Your task to perform on an android device: Go to Yahoo.com Image 0: 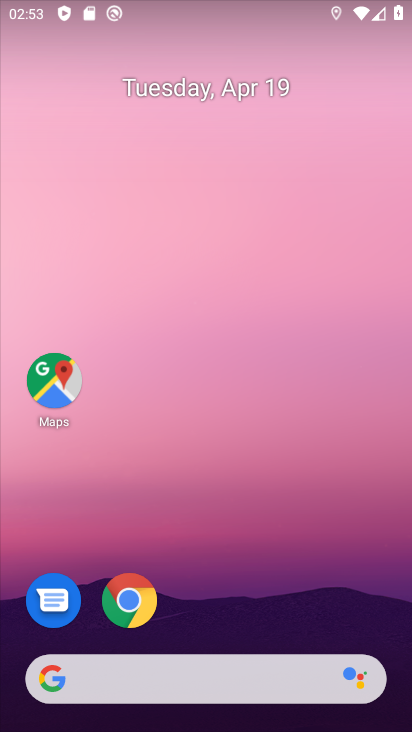
Step 0: click (146, 618)
Your task to perform on an android device: Go to Yahoo.com Image 1: 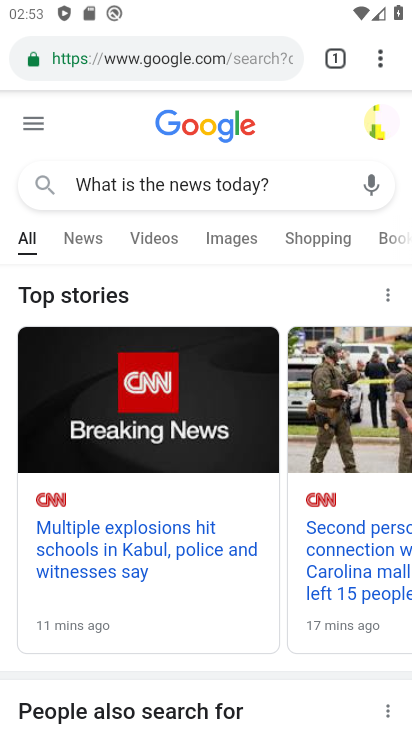
Step 1: click (209, 72)
Your task to perform on an android device: Go to Yahoo.com Image 2: 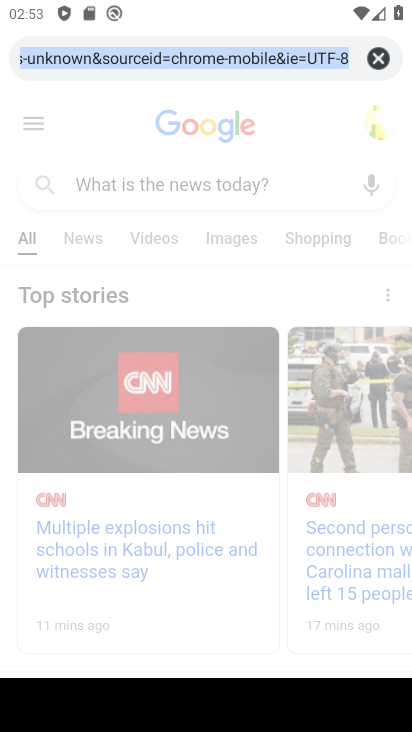
Step 2: type "Yahoo.com"
Your task to perform on an android device: Go to Yahoo.com Image 3: 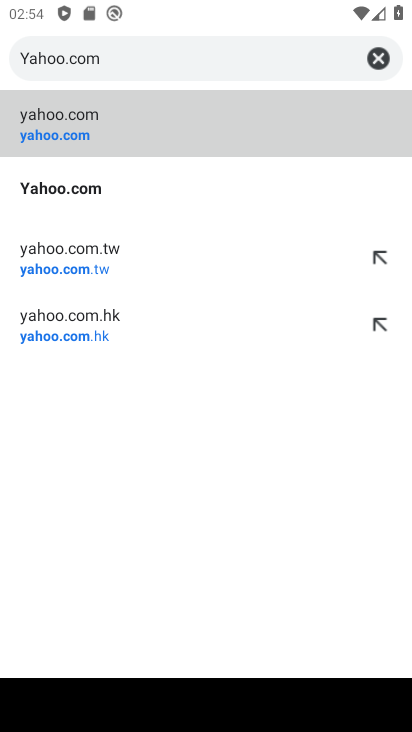
Step 3: click (54, 123)
Your task to perform on an android device: Go to Yahoo.com Image 4: 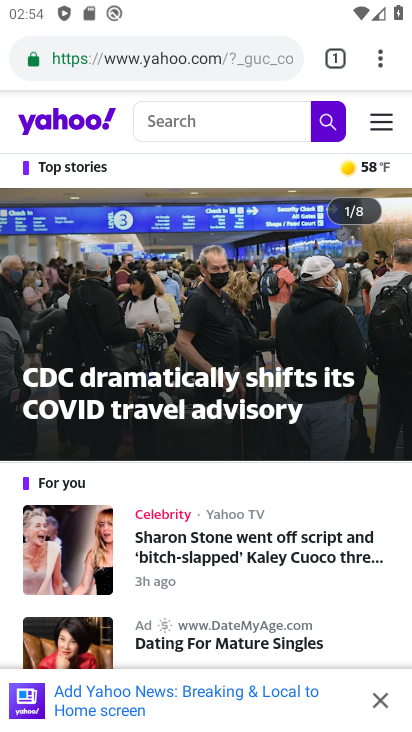
Step 4: task complete